Your task to perform on an android device: Go to internet settings Image 0: 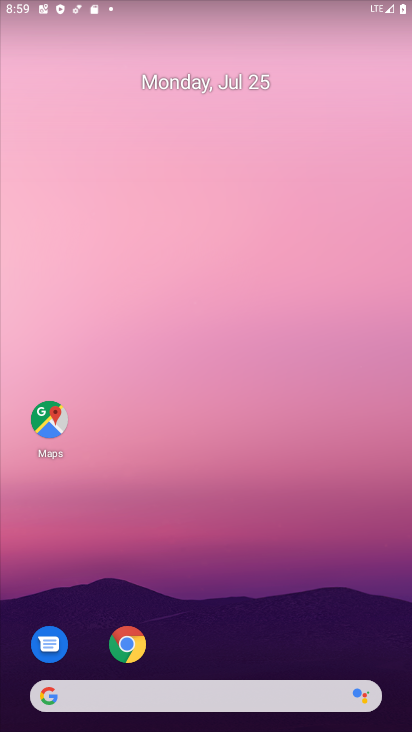
Step 0: drag from (227, 634) to (278, 33)
Your task to perform on an android device: Go to internet settings Image 1: 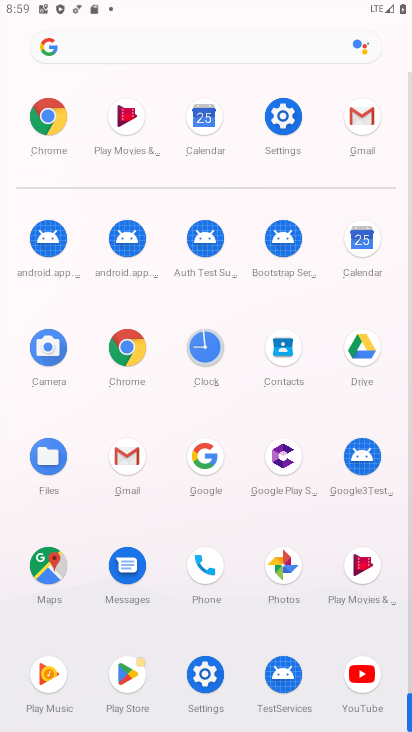
Step 1: drag from (176, 214) to (181, 99)
Your task to perform on an android device: Go to internet settings Image 2: 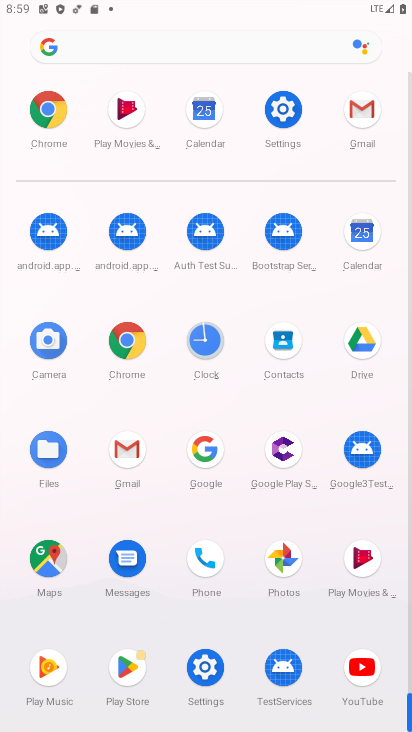
Step 2: click (211, 668)
Your task to perform on an android device: Go to internet settings Image 3: 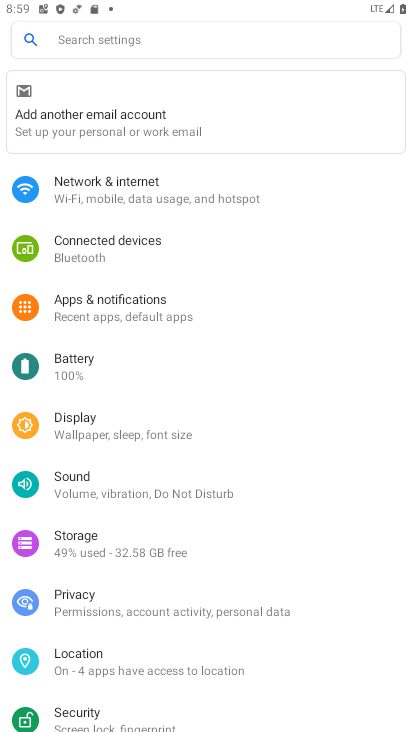
Step 3: click (196, 205)
Your task to perform on an android device: Go to internet settings Image 4: 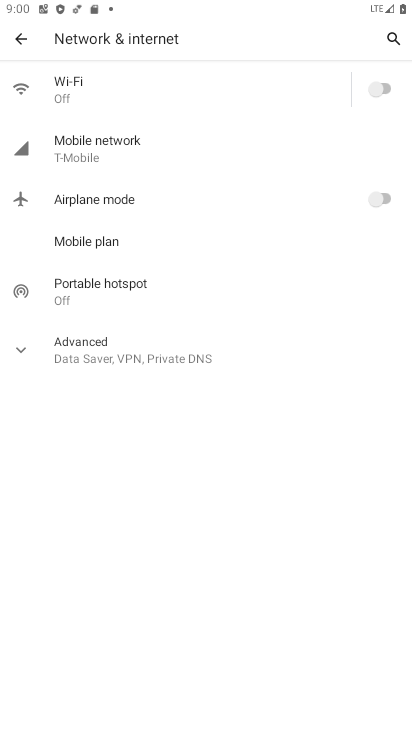
Step 4: click (173, 146)
Your task to perform on an android device: Go to internet settings Image 5: 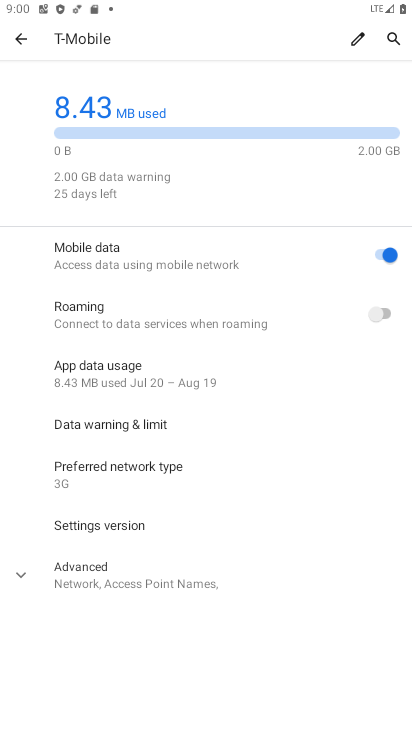
Step 5: task complete